Your task to perform on an android device: Open Yahoo.com Image 0: 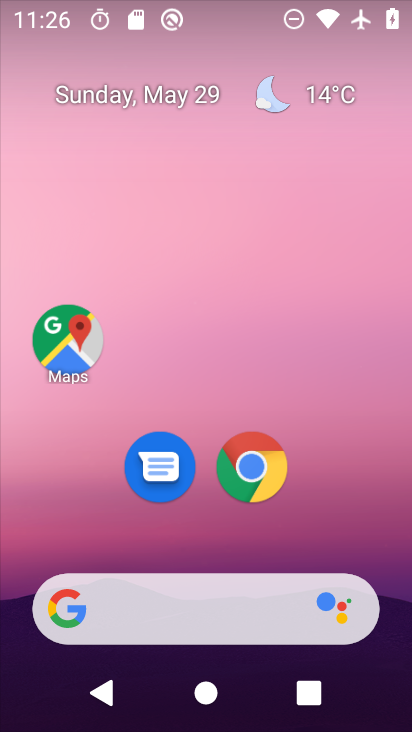
Step 0: click (236, 480)
Your task to perform on an android device: Open Yahoo.com Image 1: 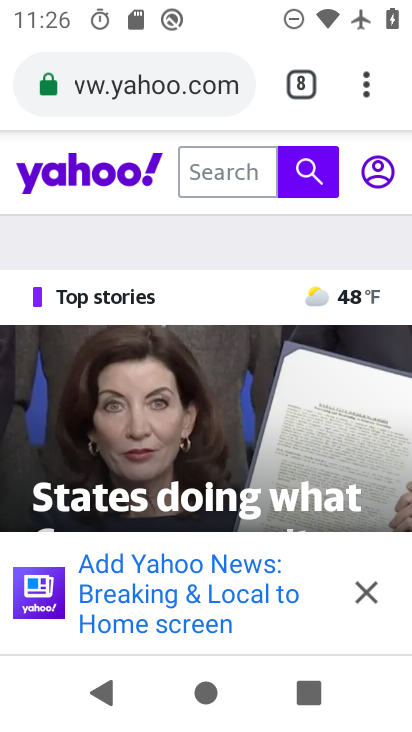
Step 1: task complete